Your task to perform on an android device: turn on bluetooth scan Image 0: 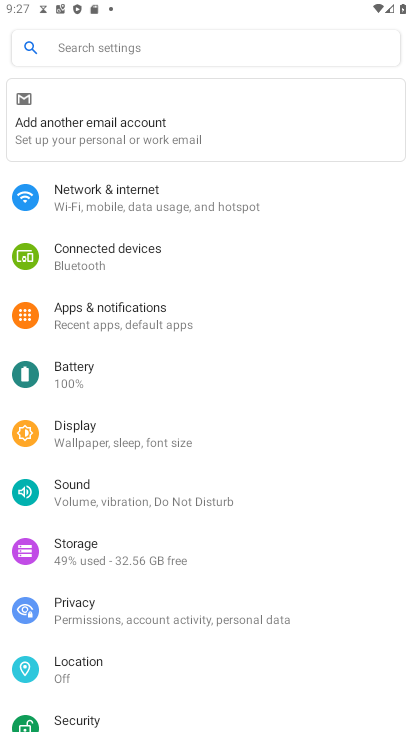
Step 0: click (112, 253)
Your task to perform on an android device: turn on bluetooth scan Image 1: 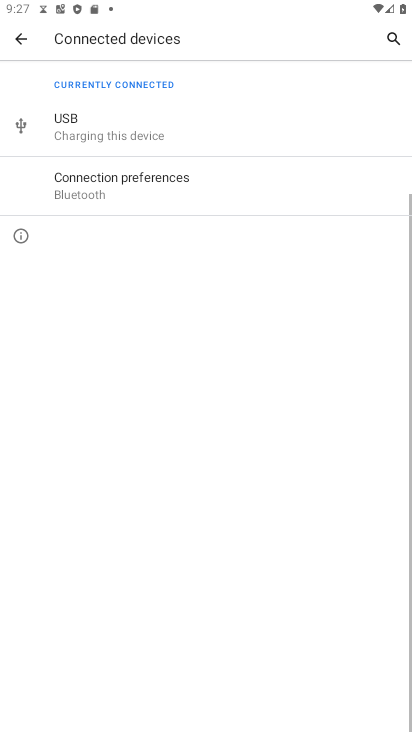
Step 1: click (120, 198)
Your task to perform on an android device: turn on bluetooth scan Image 2: 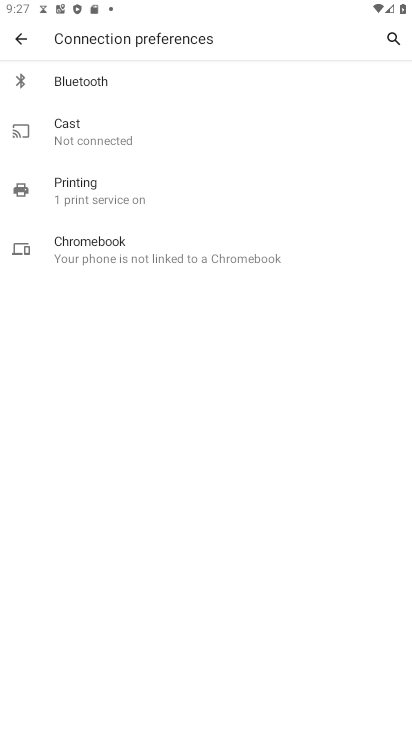
Step 2: click (93, 87)
Your task to perform on an android device: turn on bluetooth scan Image 3: 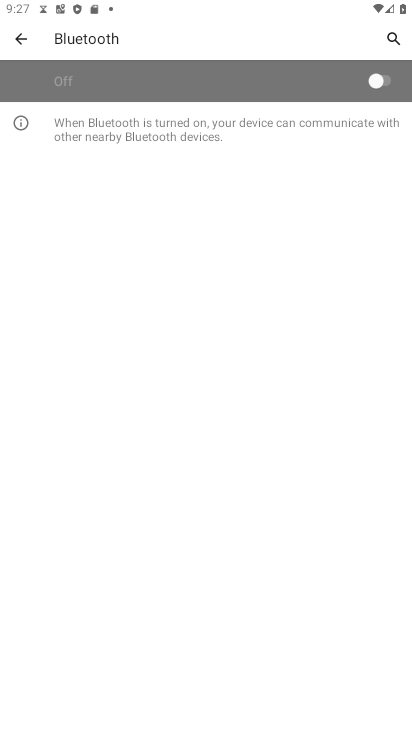
Step 3: click (380, 86)
Your task to perform on an android device: turn on bluetooth scan Image 4: 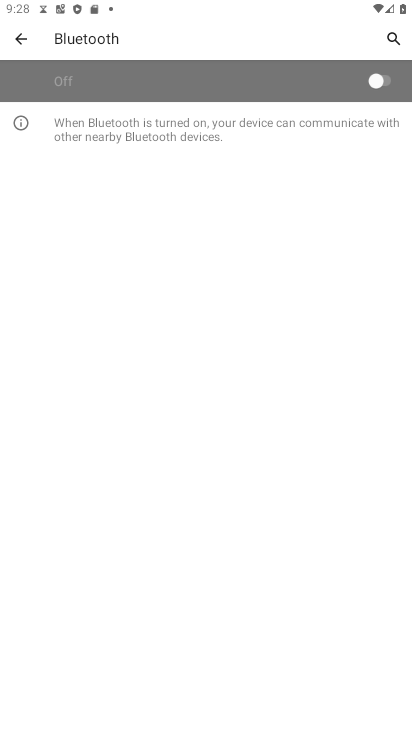
Step 4: task complete